Your task to perform on an android device: change the upload size in google photos Image 0: 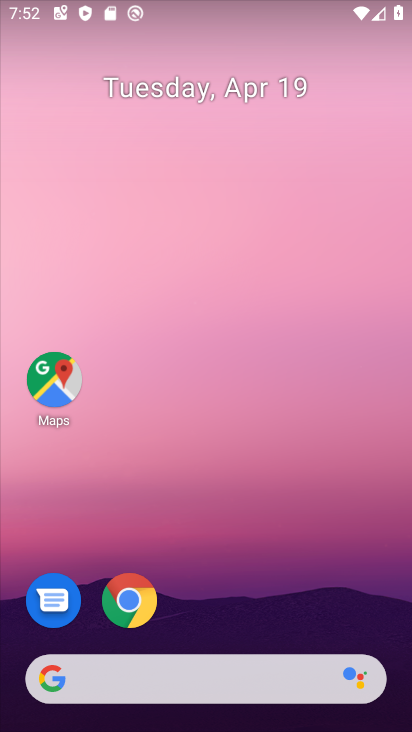
Step 0: drag from (349, 612) to (214, 55)
Your task to perform on an android device: change the upload size in google photos Image 1: 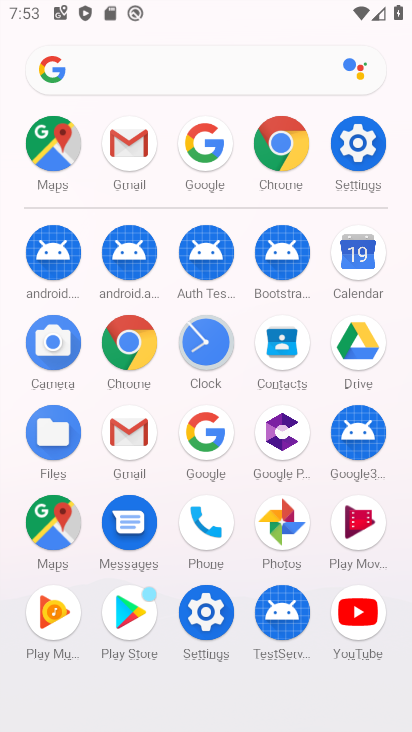
Step 1: click (281, 526)
Your task to perform on an android device: change the upload size in google photos Image 2: 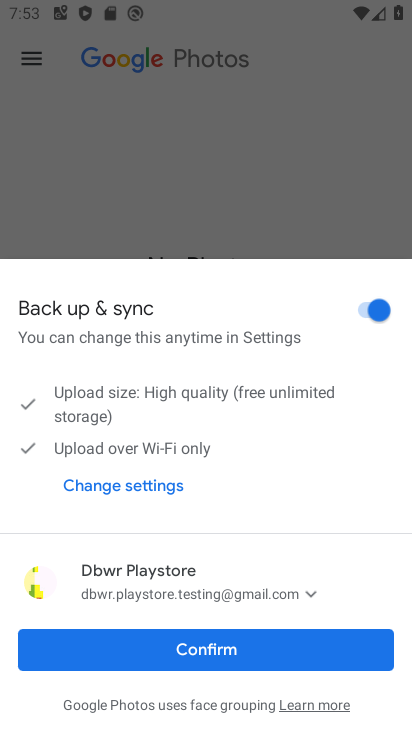
Step 2: click (251, 644)
Your task to perform on an android device: change the upload size in google photos Image 3: 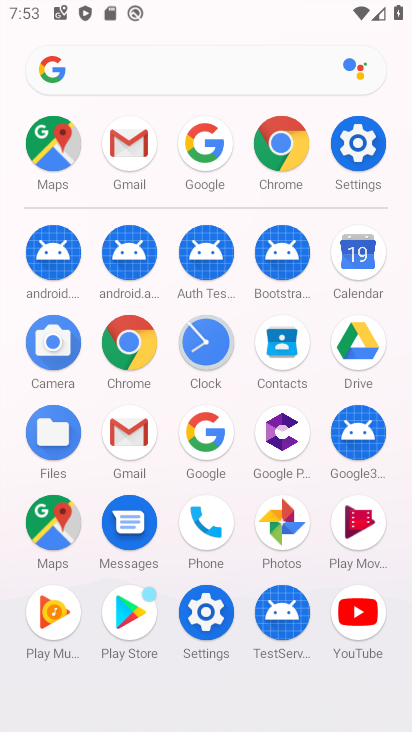
Step 3: click (285, 519)
Your task to perform on an android device: change the upload size in google photos Image 4: 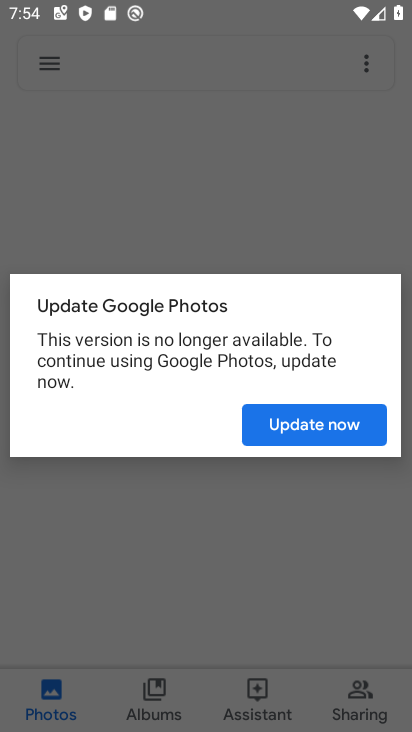
Step 4: click (293, 424)
Your task to perform on an android device: change the upload size in google photos Image 5: 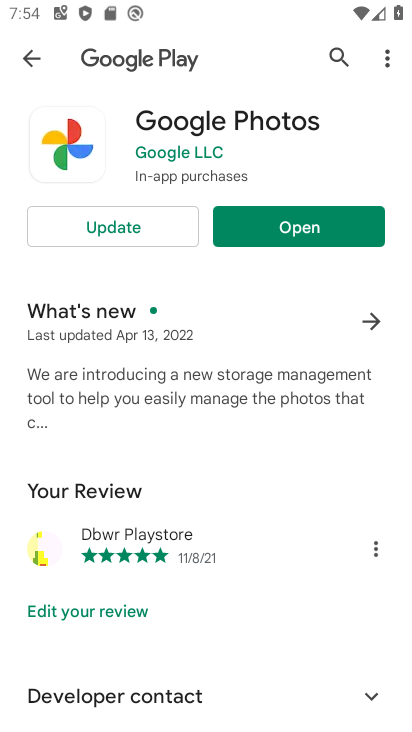
Step 5: click (141, 245)
Your task to perform on an android device: change the upload size in google photos Image 6: 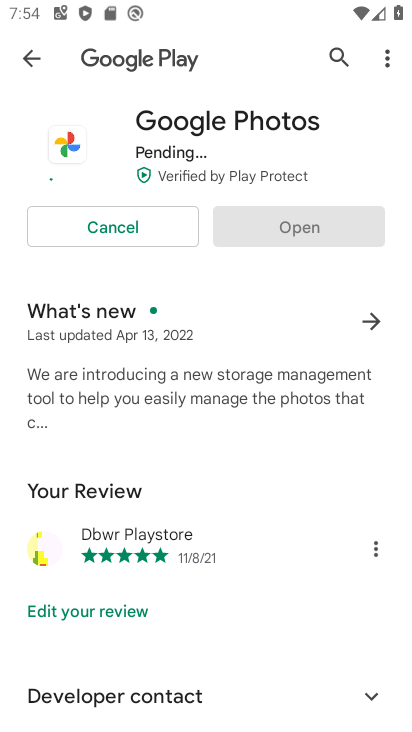
Step 6: click (122, 230)
Your task to perform on an android device: change the upload size in google photos Image 7: 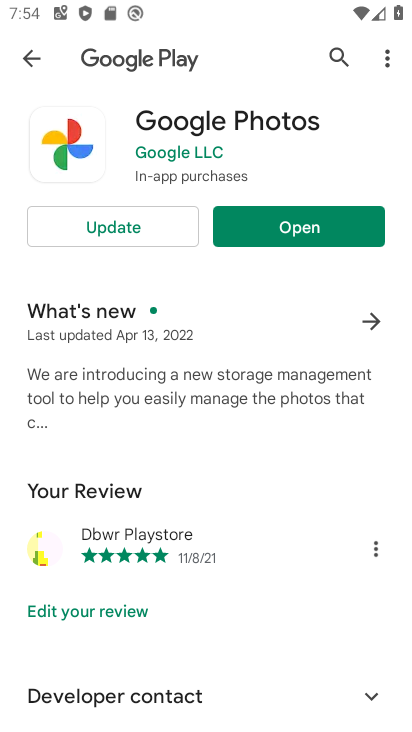
Step 7: click (122, 230)
Your task to perform on an android device: change the upload size in google photos Image 8: 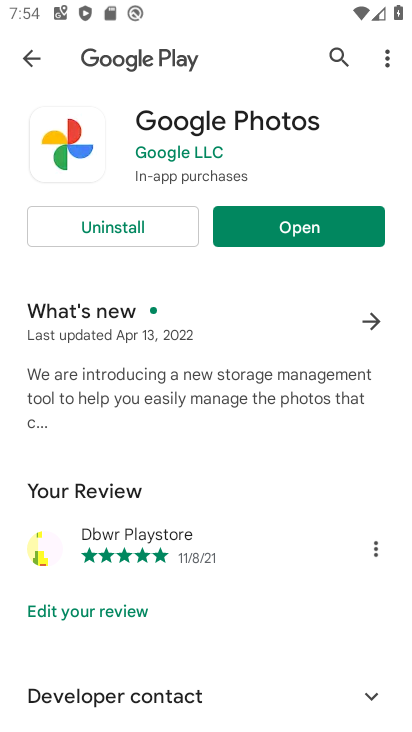
Step 8: click (280, 219)
Your task to perform on an android device: change the upload size in google photos Image 9: 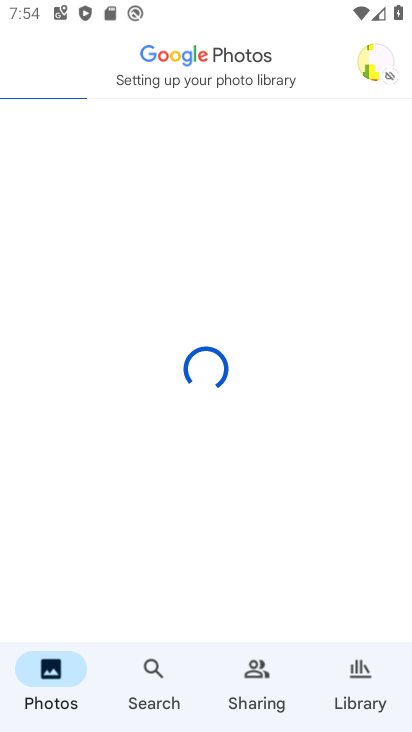
Step 9: click (366, 68)
Your task to perform on an android device: change the upload size in google photos Image 10: 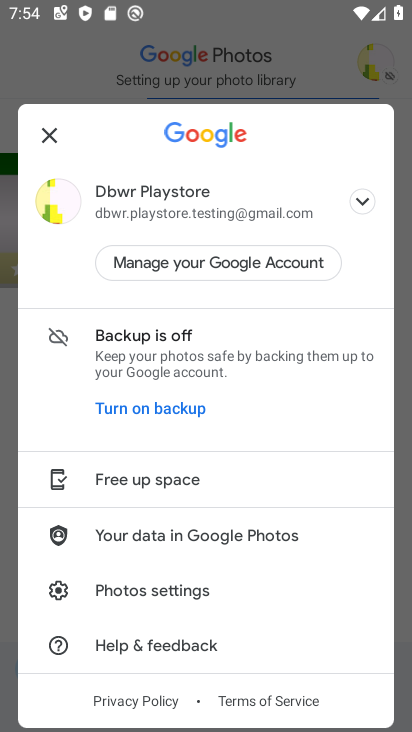
Step 10: click (178, 590)
Your task to perform on an android device: change the upload size in google photos Image 11: 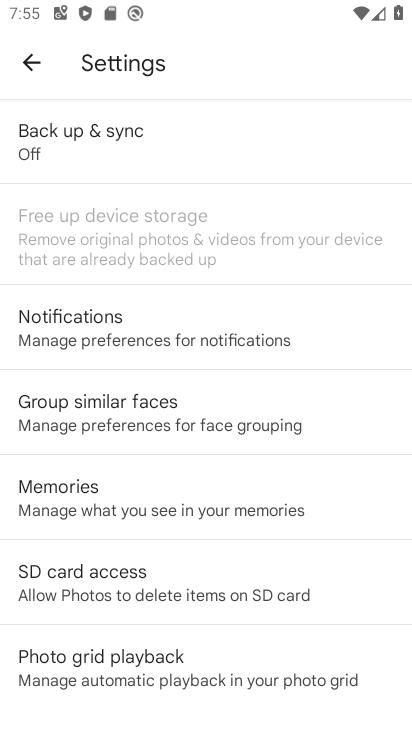
Step 11: click (152, 156)
Your task to perform on an android device: change the upload size in google photos Image 12: 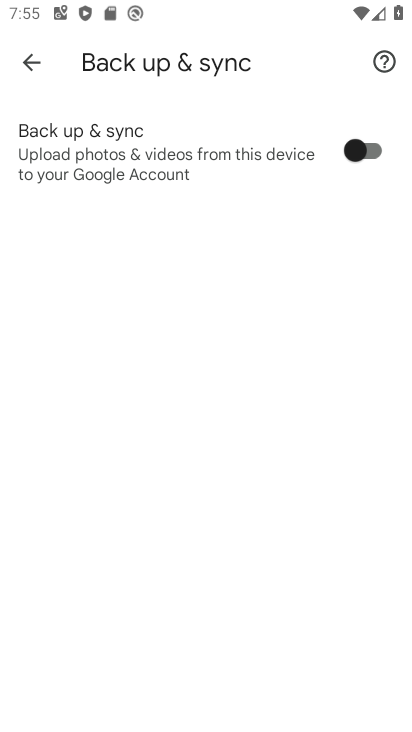
Step 12: task complete